Your task to perform on an android device: turn off improve location accuracy Image 0: 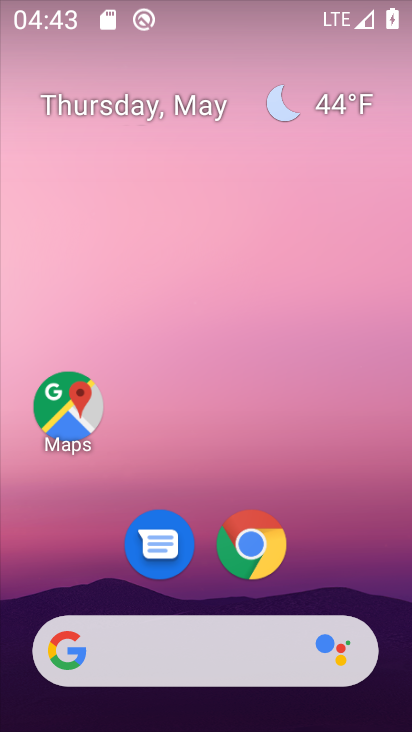
Step 0: drag from (316, 586) to (355, 139)
Your task to perform on an android device: turn off improve location accuracy Image 1: 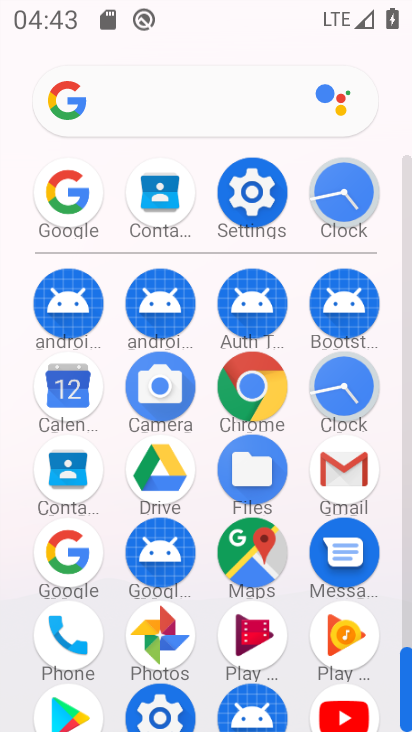
Step 1: click (257, 192)
Your task to perform on an android device: turn off improve location accuracy Image 2: 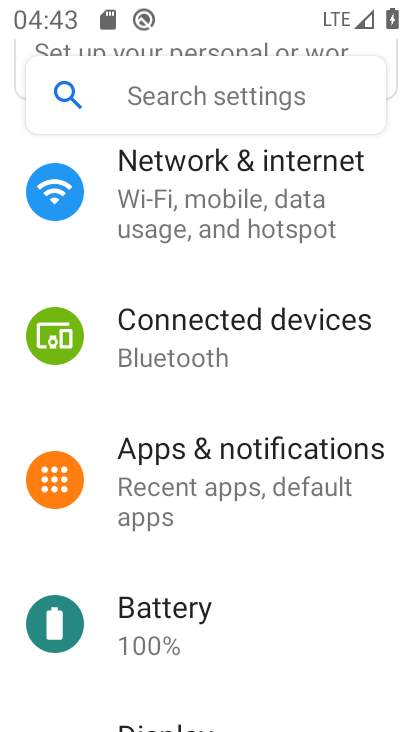
Step 2: drag from (224, 548) to (294, 300)
Your task to perform on an android device: turn off improve location accuracy Image 3: 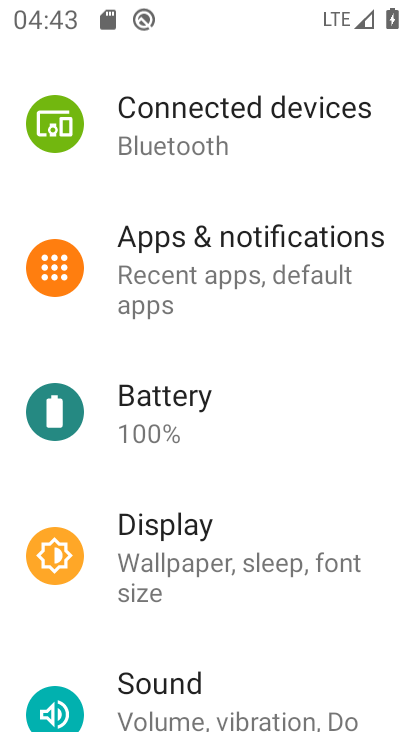
Step 3: drag from (270, 538) to (351, 264)
Your task to perform on an android device: turn off improve location accuracy Image 4: 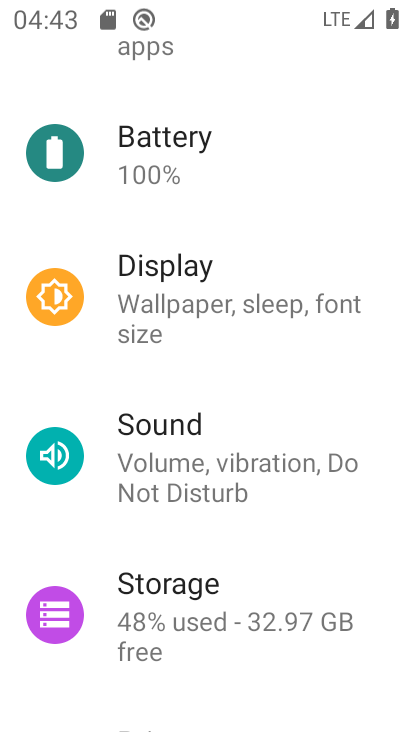
Step 4: drag from (251, 619) to (291, 388)
Your task to perform on an android device: turn off improve location accuracy Image 5: 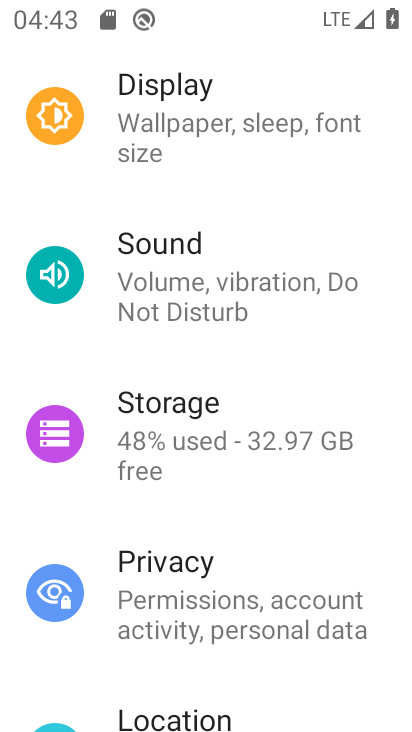
Step 5: drag from (191, 603) to (228, 257)
Your task to perform on an android device: turn off improve location accuracy Image 6: 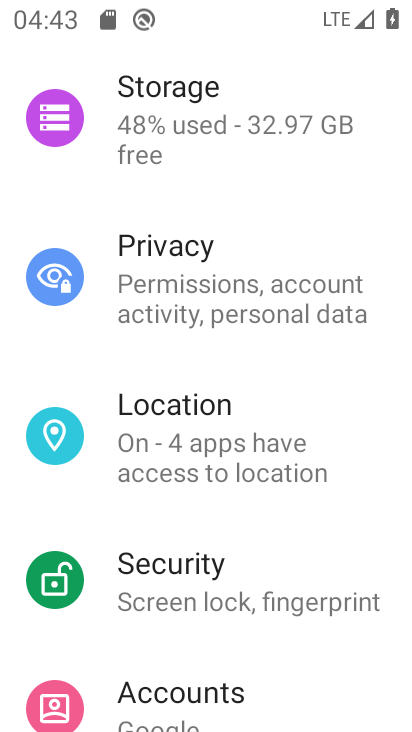
Step 6: click (233, 474)
Your task to perform on an android device: turn off improve location accuracy Image 7: 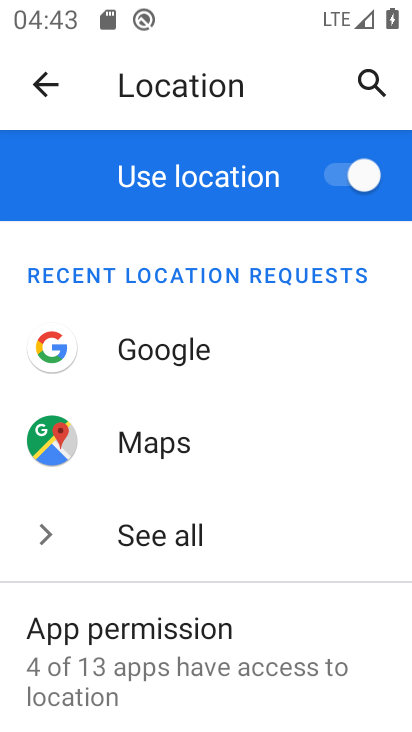
Step 7: drag from (252, 699) to (303, 420)
Your task to perform on an android device: turn off improve location accuracy Image 8: 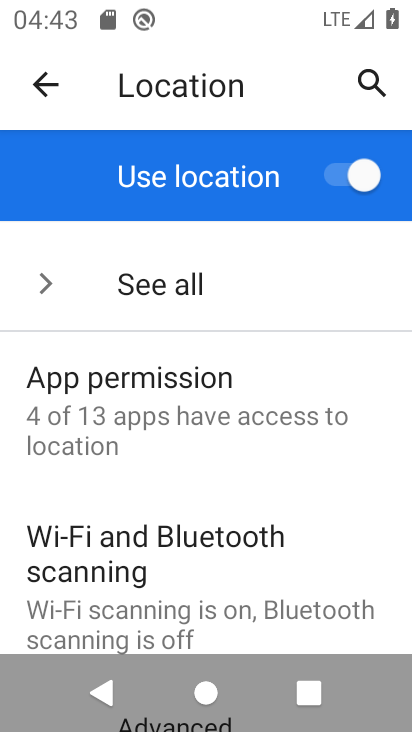
Step 8: drag from (273, 596) to (341, 320)
Your task to perform on an android device: turn off improve location accuracy Image 9: 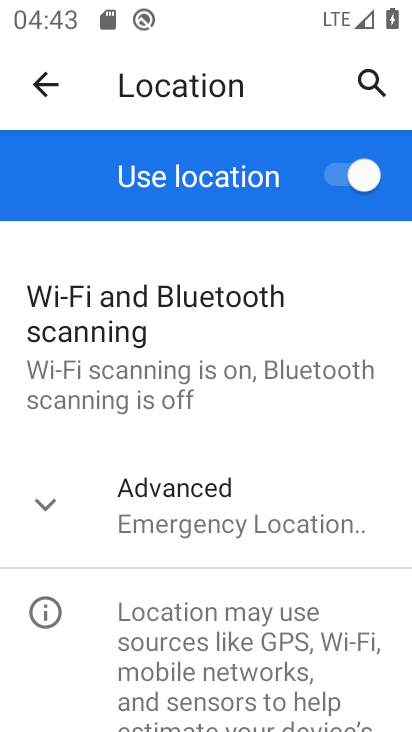
Step 9: click (228, 537)
Your task to perform on an android device: turn off improve location accuracy Image 10: 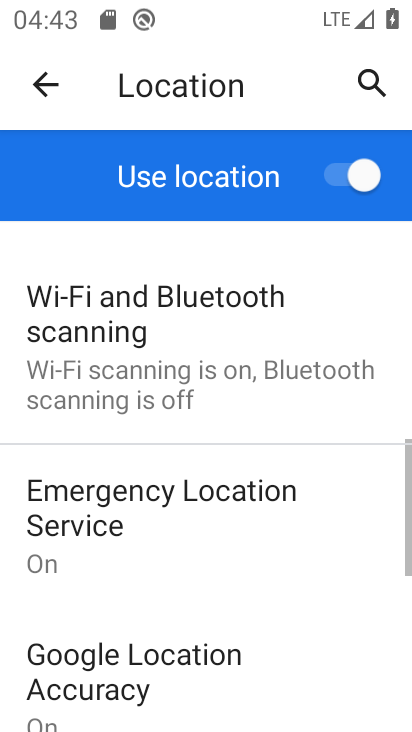
Step 10: drag from (202, 594) to (293, 265)
Your task to perform on an android device: turn off improve location accuracy Image 11: 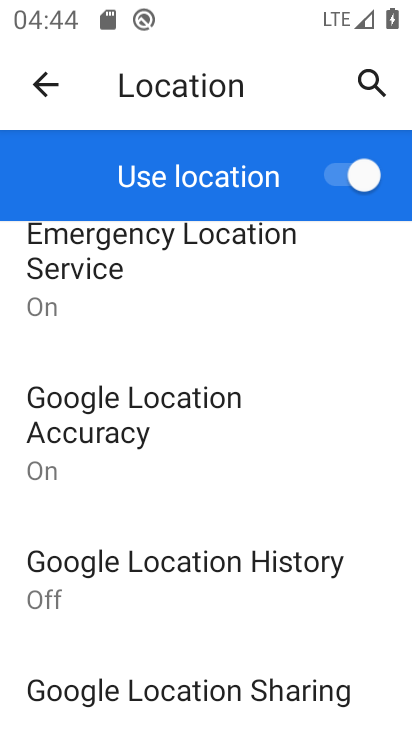
Step 11: drag from (207, 402) to (233, 319)
Your task to perform on an android device: turn off improve location accuracy Image 12: 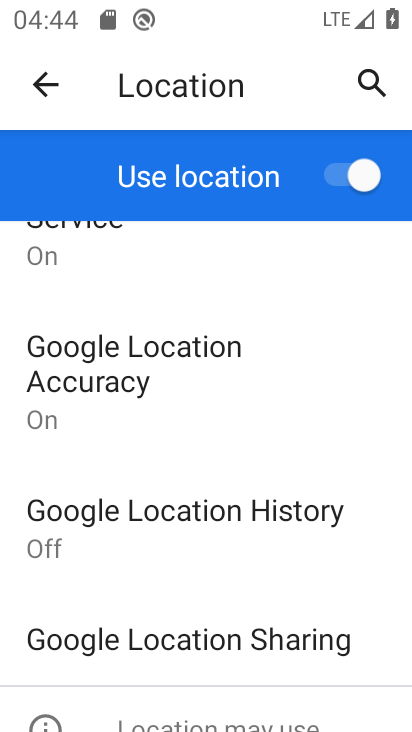
Step 12: click (170, 421)
Your task to perform on an android device: turn off improve location accuracy Image 13: 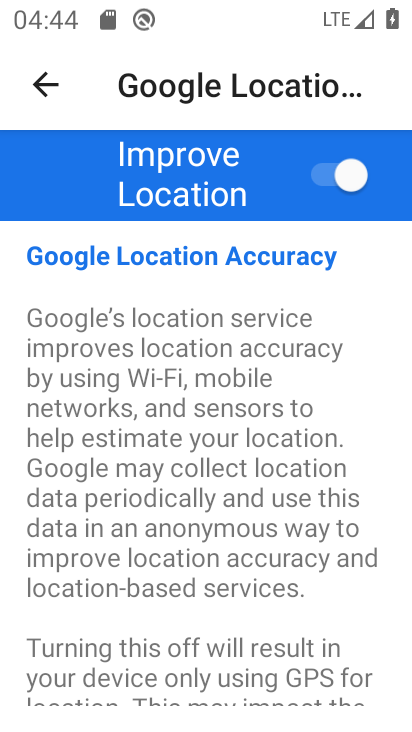
Step 13: click (334, 174)
Your task to perform on an android device: turn off improve location accuracy Image 14: 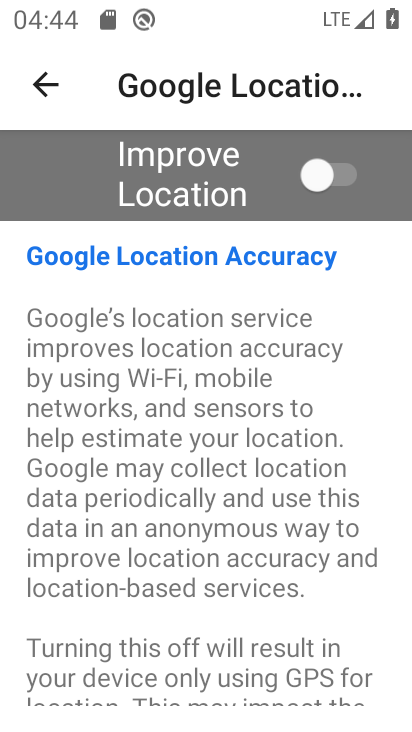
Step 14: task complete